Your task to perform on an android device: check data usage Image 0: 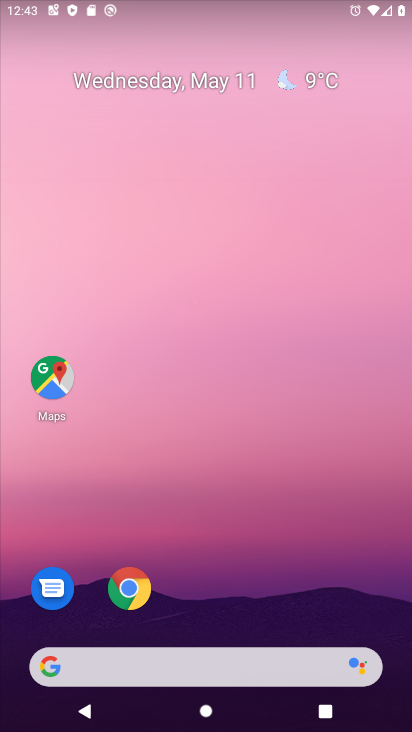
Step 0: drag from (280, 618) to (299, 47)
Your task to perform on an android device: check data usage Image 1: 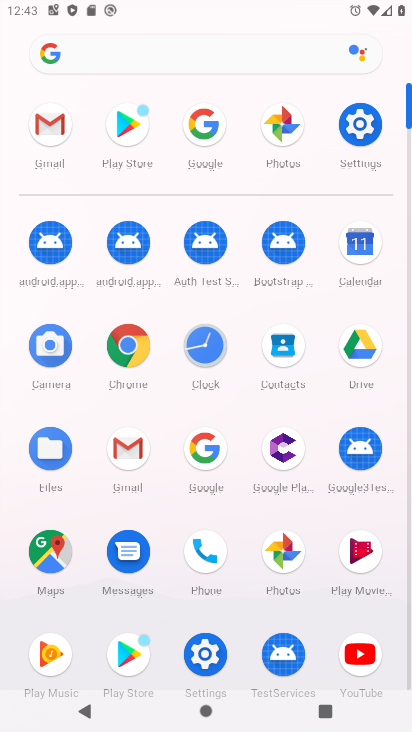
Step 1: click (354, 138)
Your task to perform on an android device: check data usage Image 2: 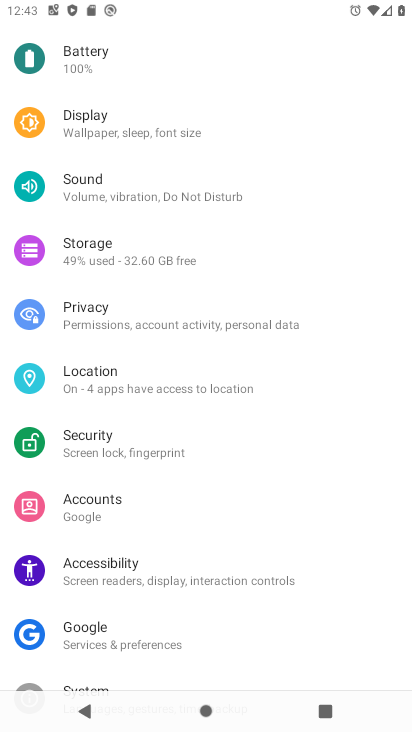
Step 2: drag from (287, 139) to (268, 530)
Your task to perform on an android device: check data usage Image 3: 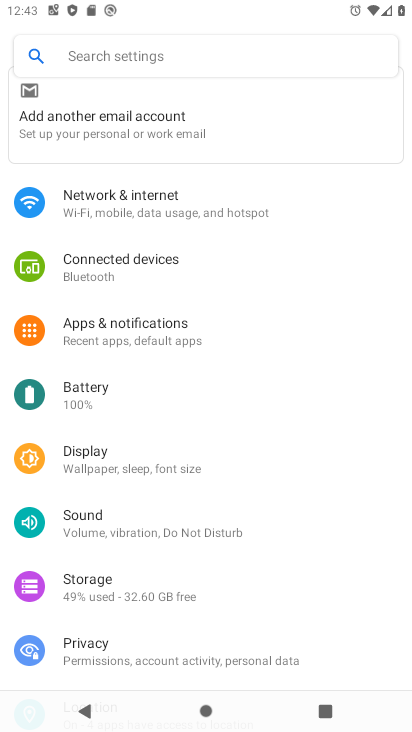
Step 3: drag from (286, 240) to (278, 485)
Your task to perform on an android device: check data usage Image 4: 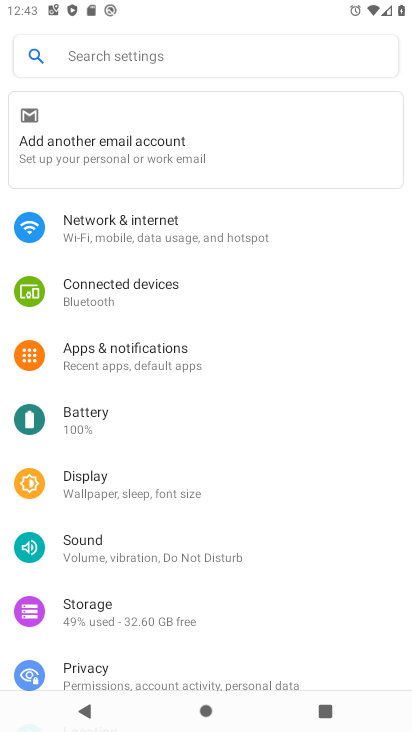
Step 4: click (146, 240)
Your task to perform on an android device: check data usage Image 5: 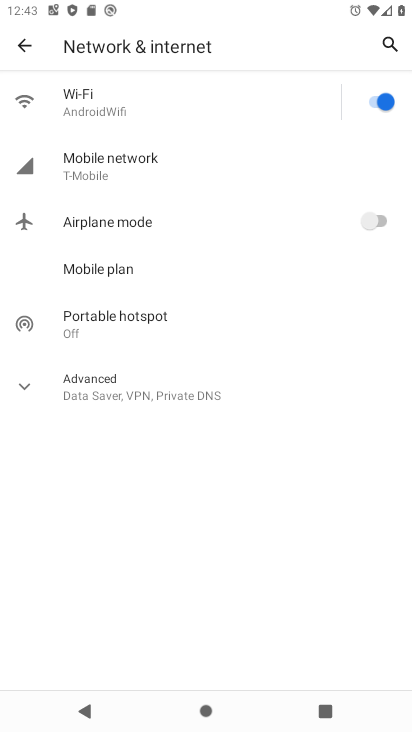
Step 5: click (96, 171)
Your task to perform on an android device: check data usage Image 6: 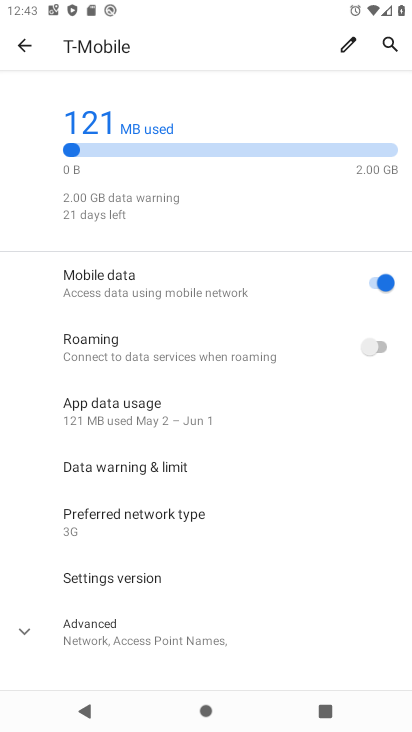
Step 6: click (135, 415)
Your task to perform on an android device: check data usage Image 7: 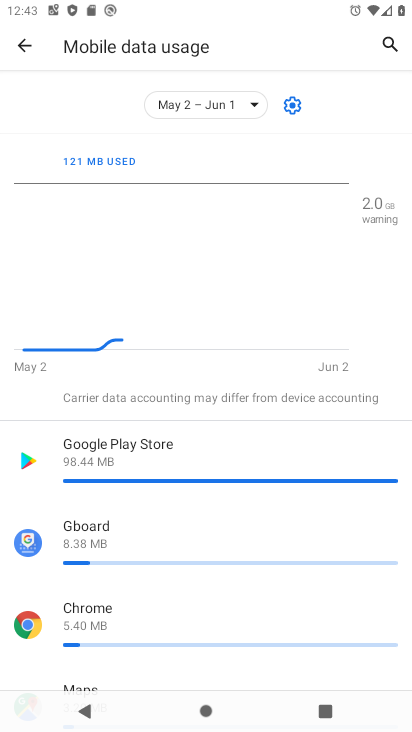
Step 7: task complete